Your task to perform on an android device: Install the Twitter app Image 0: 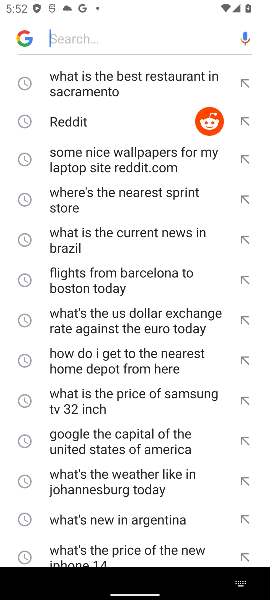
Step 0: press home button
Your task to perform on an android device: Install the Twitter app Image 1: 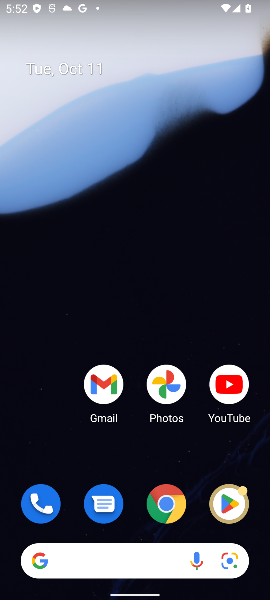
Step 1: drag from (51, 445) to (130, 0)
Your task to perform on an android device: Install the Twitter app Image 2: 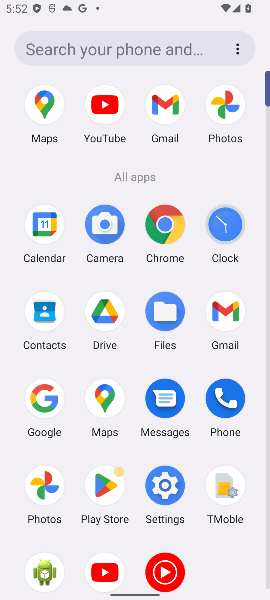
Step 2: click (99, 482)
Your task to perform on an android device: Install the Twitter app Image 3: 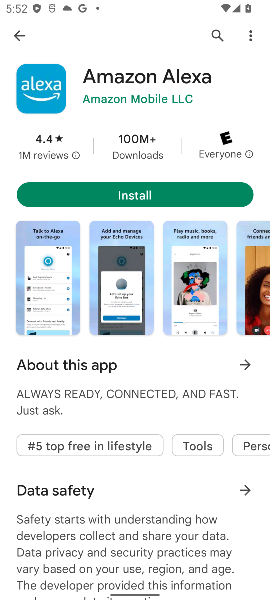
Step 3: click (216, 35)
Your task to perform on an android device: Install the Twitter app Image 4: 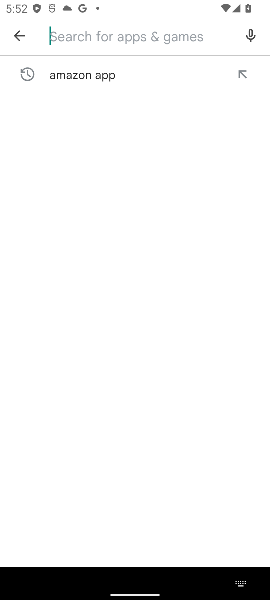
Step 4: click (101, 53)
Your task to perform on an android device: Install the Twitter app Image 5: 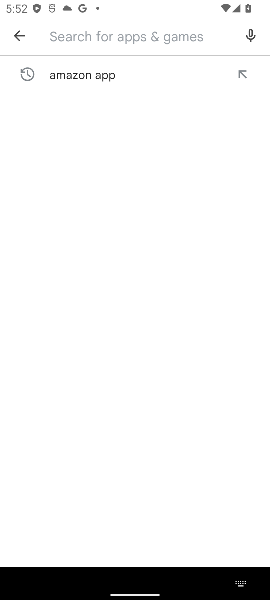
Step 5: type "twitter"
Your task to perform on an android device: Install the Twitter app Image 6: 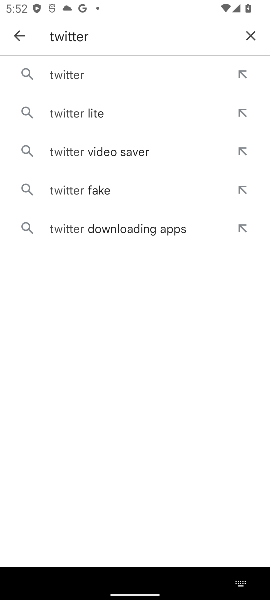
Step 6: click (66, 72)
Your task to perform on an android device: Install the Twitter app Image 7: 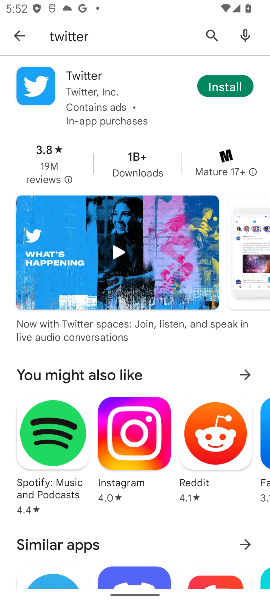
Step 7: click (211, 87)
Your task to perform on an android device: Install the Twitter app Image 8: 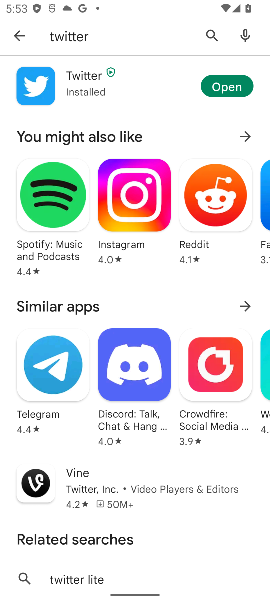
Step 8: task complete